Your task to perform on an android device: turn on bluetooth scan Image 0: 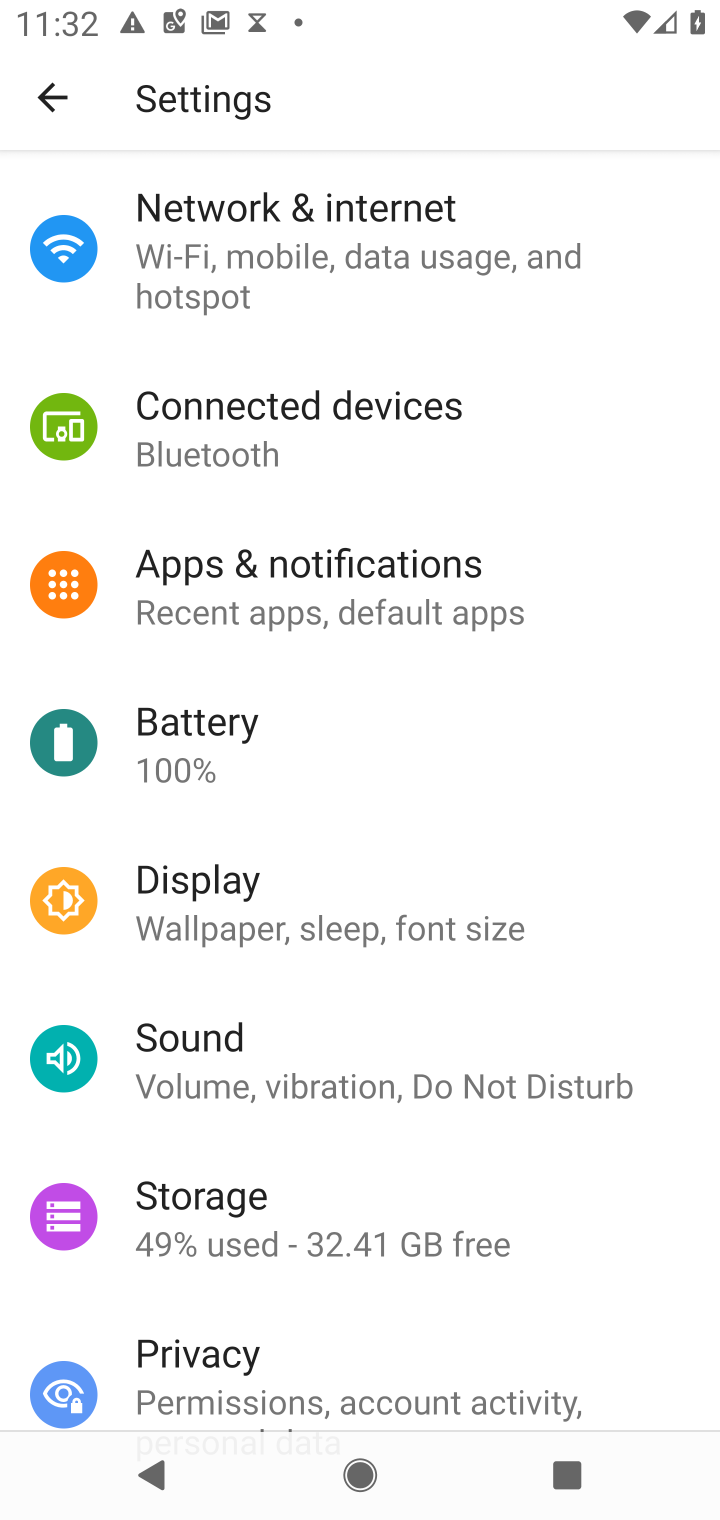
Step 0: drag from (308, 1010) to (443, 458)
Your task to perform on an android device: turn on bluetooth scan Image 1: 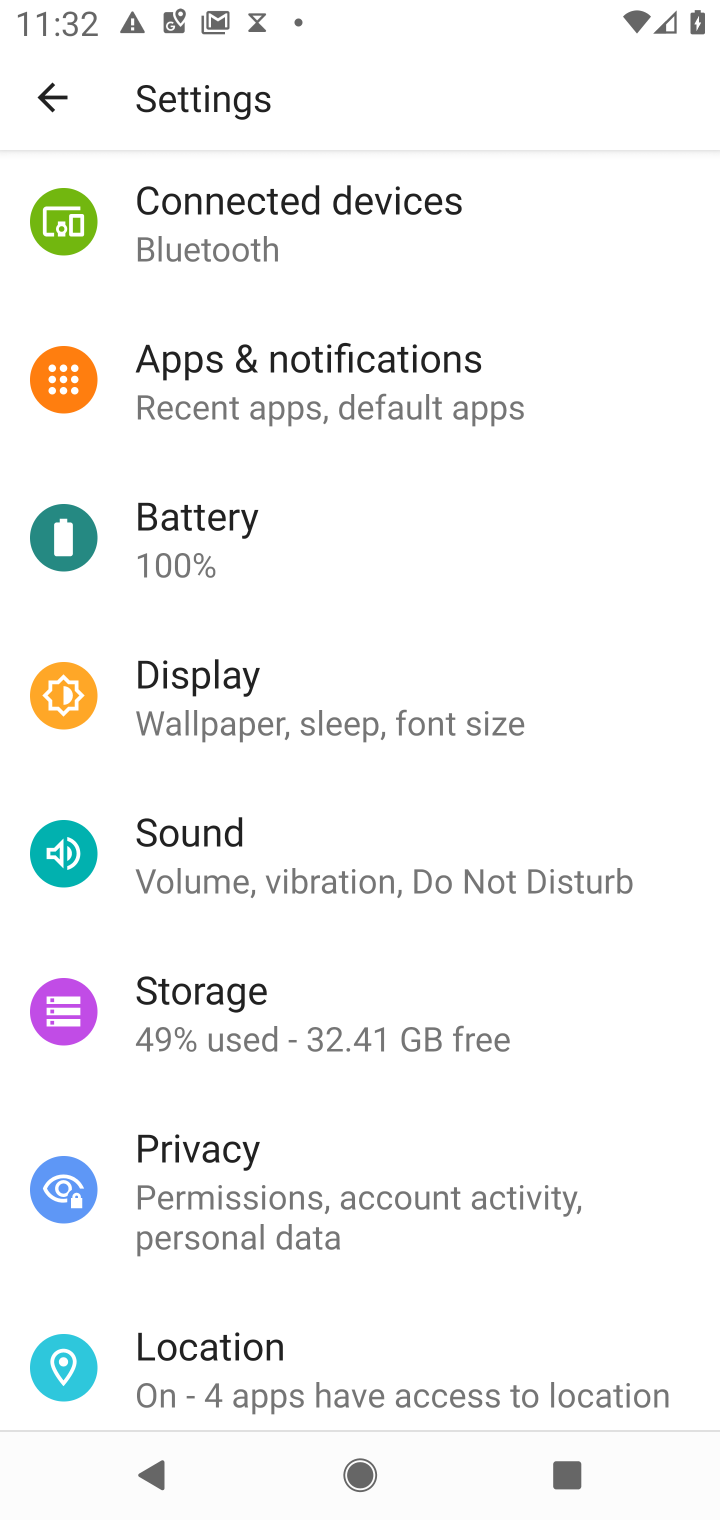
Step 1: click (261, 1322)
Your task to perform on an android device: turn on bluetooth scan Image 2: 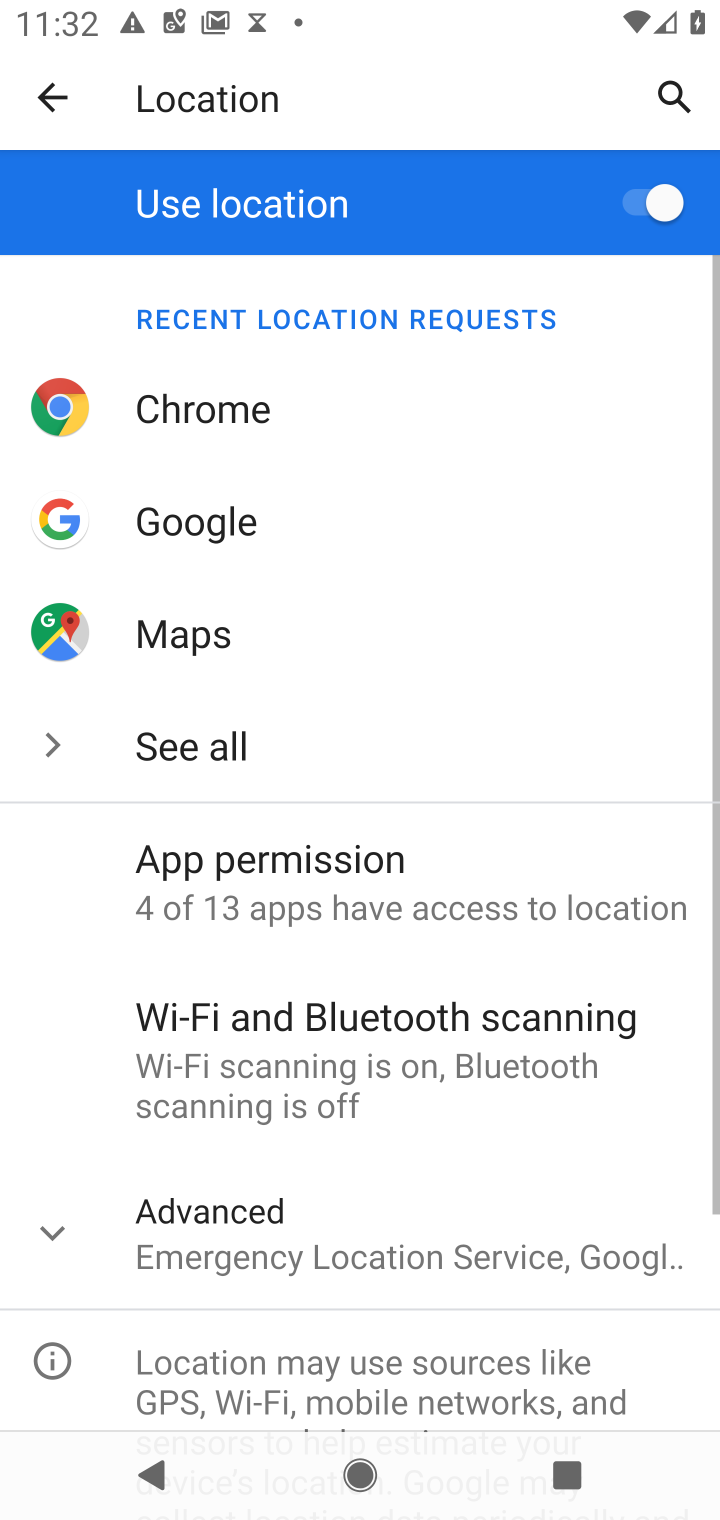
Step 2: click (373, 1061)
Your task to perform on an android device: turn on bluetooth scan Image 3: 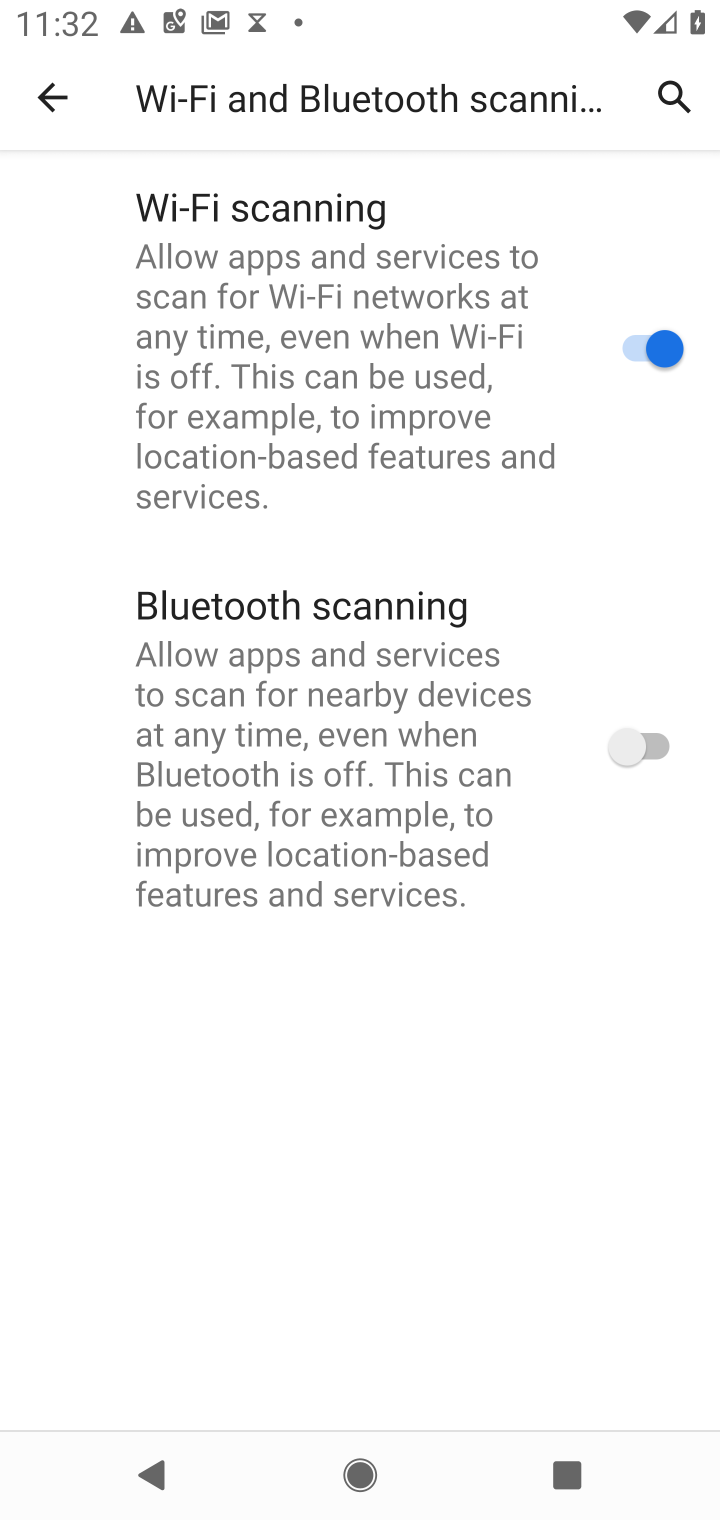
Step 3: click (677, 743)
Your task to perform on an android device: turn on bluetooth scan Image 4: 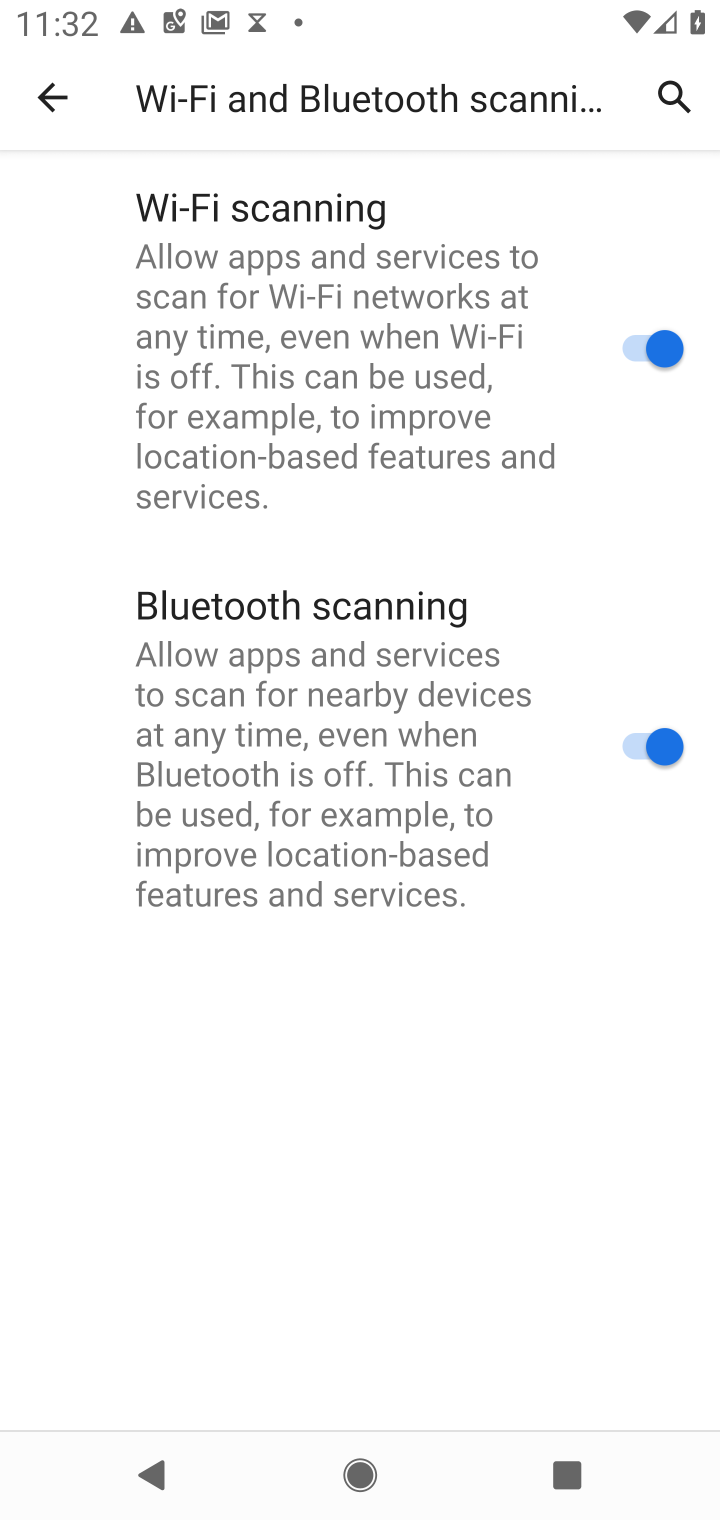
Step 4: task complete